Your task to perform on an android device: Set the phone to "Do not disturb". Image 0: 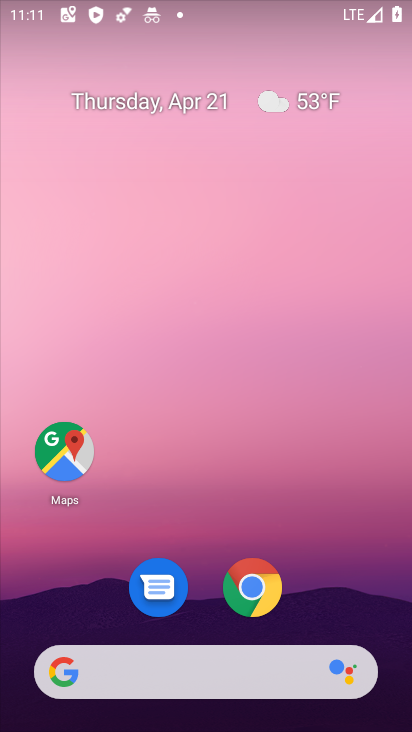
Step 0: drag from (196, 675) to (156, 108)
Your task to perform on an android device: Set the phone to "Do not disturb". Image 1: 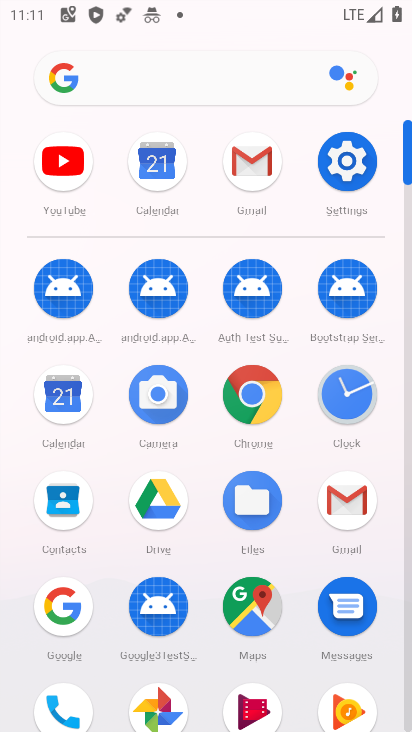
Step 1: click (321, 170)
Your task to perform on an android device: Set the phone to "Do not disturb". Image 2: 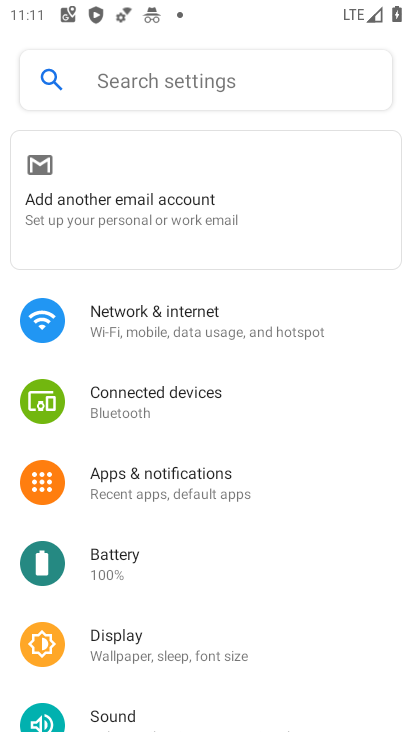
Step 2: drag from (235, 577) to (92, 0)
Your task to perform on an android device: Set the phone to "Do not disturb". Image 3: 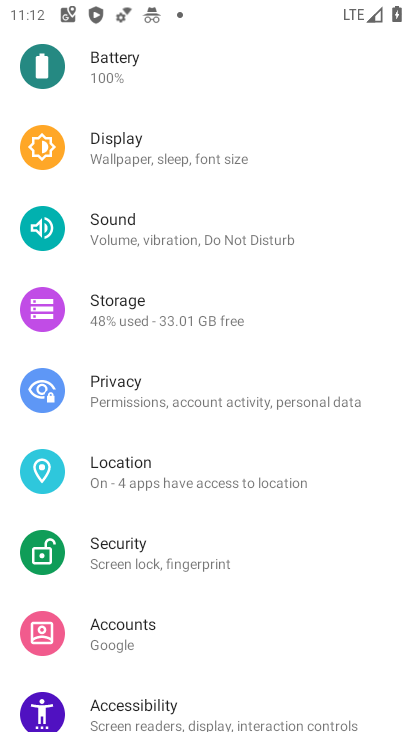
Step 3: click (115, 228)
Your task to perform on an android device: Set the phone to "Do not disturb". Image 4: 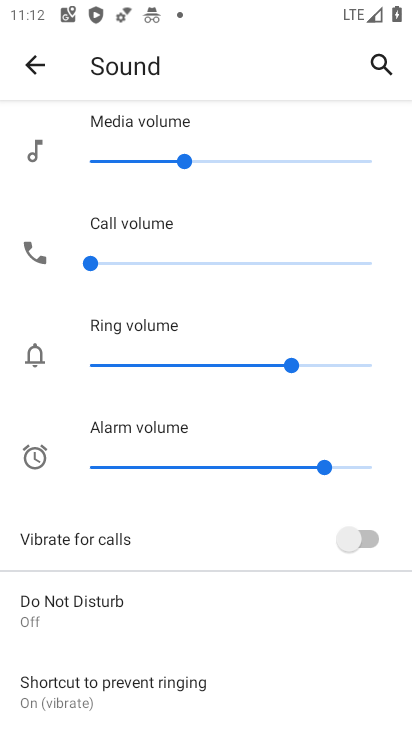
Step 4: click (202, 602)
Your task to perform on an android device: Set the phone to "Do not disturb". Image 5: 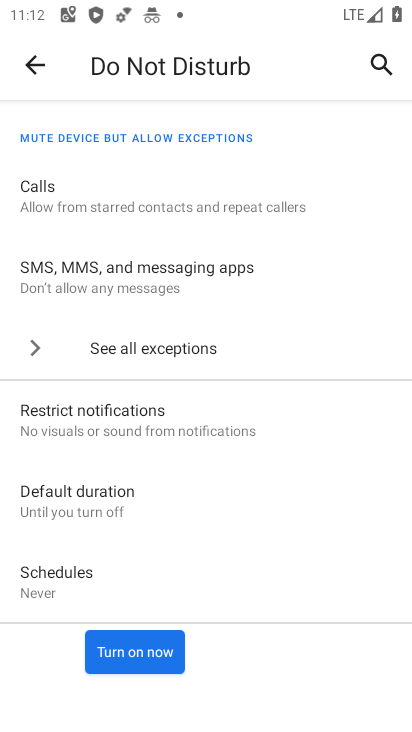
Step 5: click (154, 647)
Your task to perform on an android device: Set the phone to "Do not disturb". Image 6: 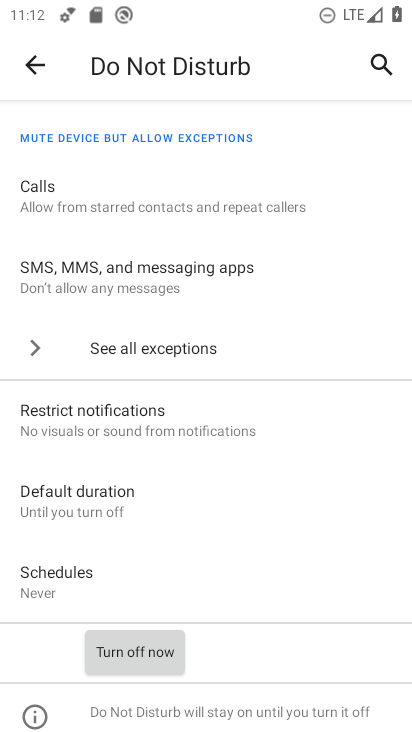
Step 6: task complete